Your task to perform on an android device: make emails show in primary in the gmail app Image 0: 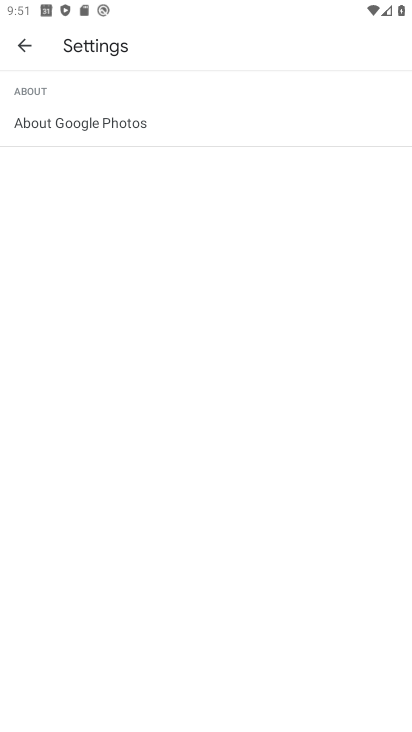
Step 0: press home button
Your task to perform on an android device: make emails show in primary in the gmail app Image 1: 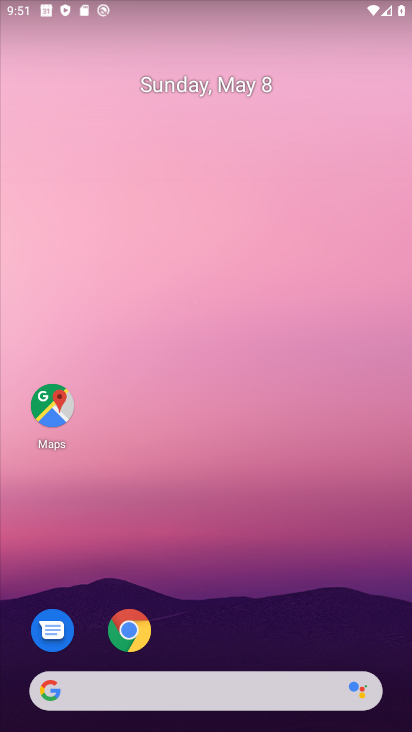
Step 1: drag from (216, 729) to (217, 282)
Your task to perform on an android device: make emails show in primary in the gmail app Image 2: 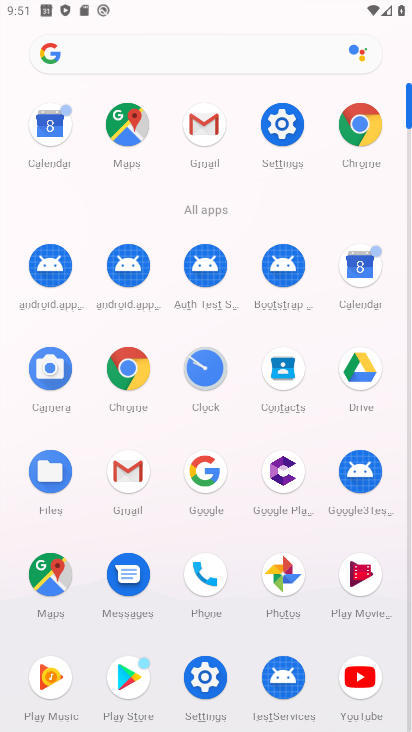
Step 2: click (122, 484)
Your task to perform on an android device: make emails show in primary in the gmail app Image 3: 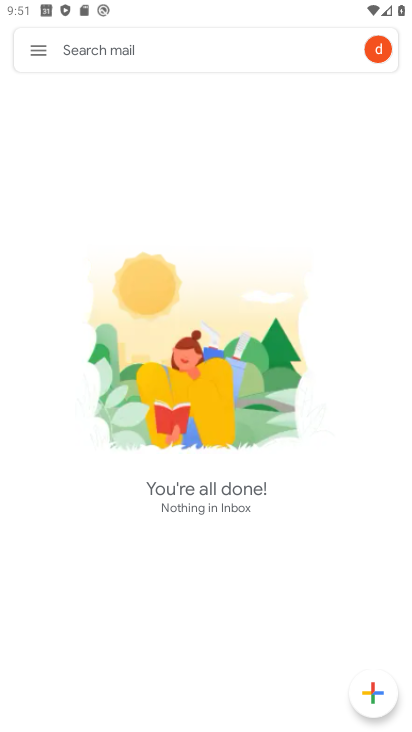
Step 3: click (40, 55)
Your task to perform on an android device: make emails show in primary in the gmail app Image 4: 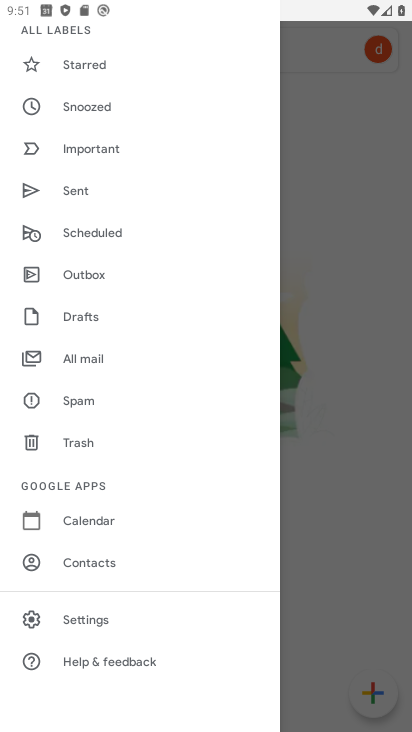
Step 4: click (89, 616)
Your task to perform on an android device: make emails show in primary in the gmail app Image 5: 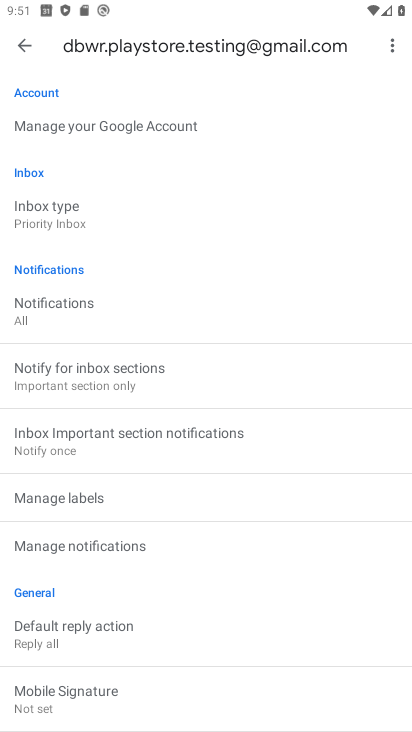
Step 5: click (53, 217)
Your task to perform on an android device: make emails show in primary in the gmail app Image 6: 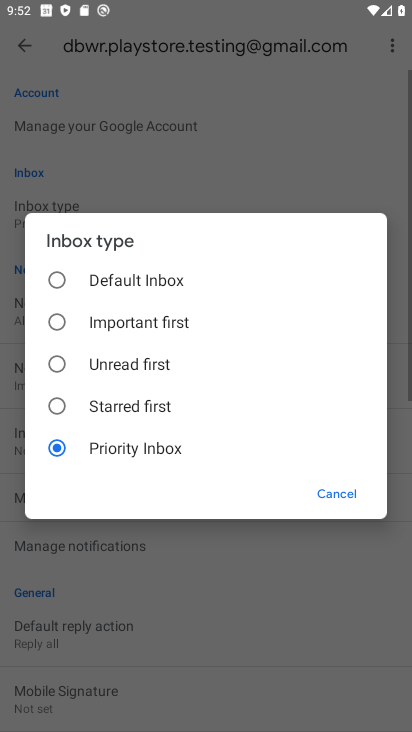
Step 6: click (51, 279)
Your task to perform on an android device: make emails show in primary in the gmail app Image 7: 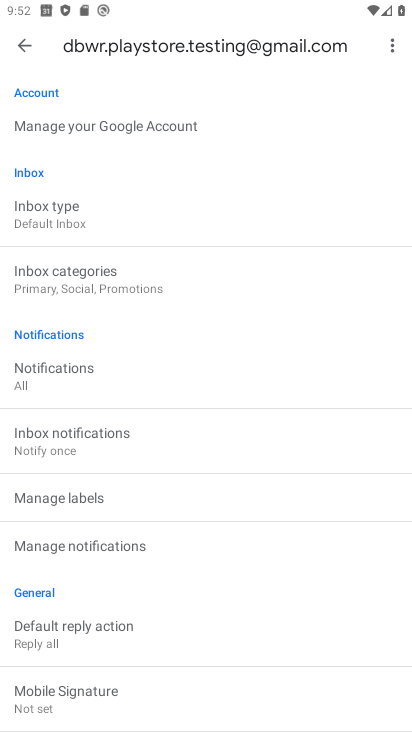
Step 7: click (84, 279)
Your task to perform on an android device: make emails show in primary in the gmail app Image 8: 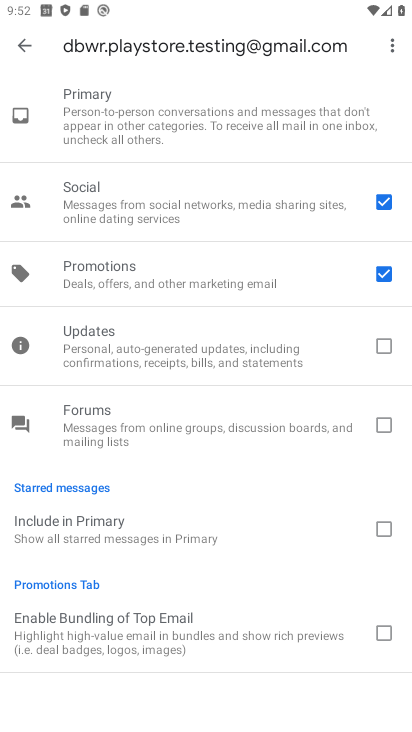
Step 8: click (382, 277)
Your task to perform on an android device: make emails show in primary in the gmail app Image 9: 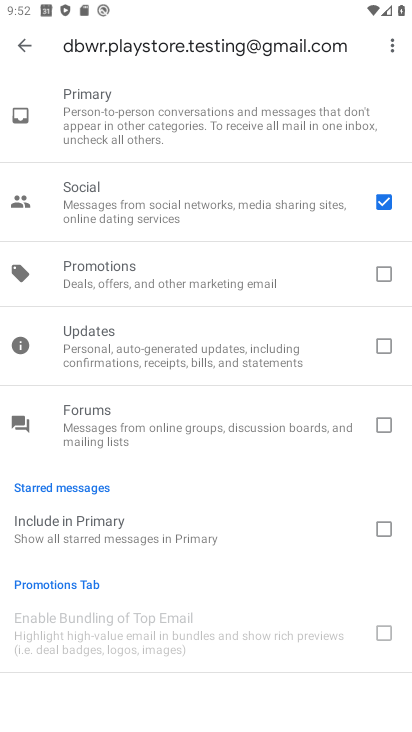
Step 9: click (385, 197)
Your task to perform on an android device: make emails show in primary in the gmail app Image 10: 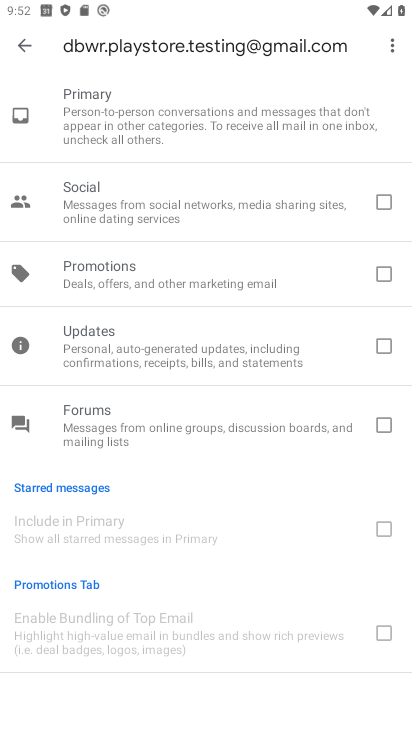
Step 10: click (26, 49)
Your task to perform on an android device: make emails show in primary in the gmail app Image 11: 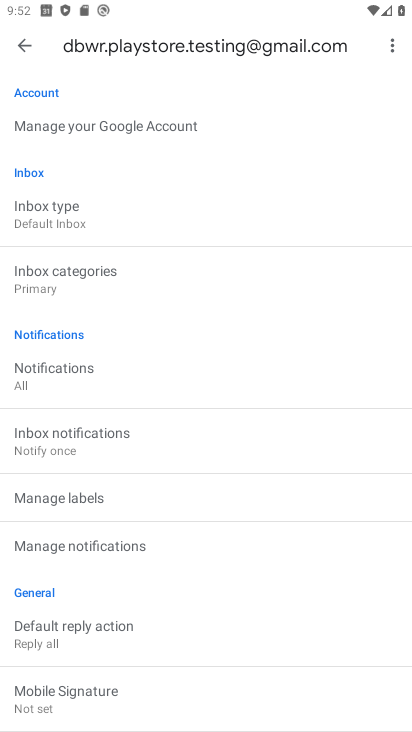
Step 11: task complete